Your task to perform on an android device: turn on wifi Image 0: 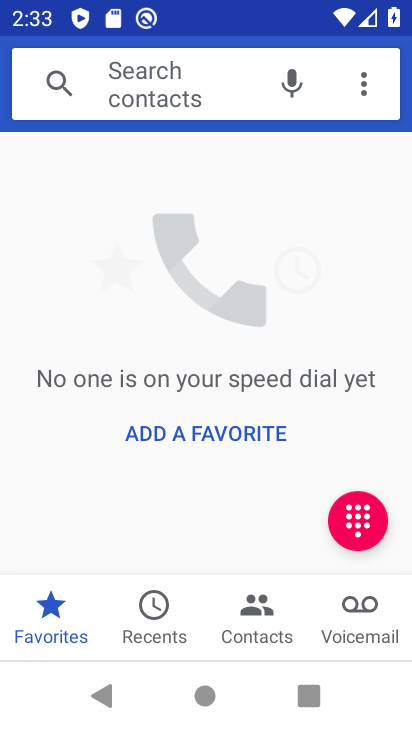
Step 0: press back button
Your task to perform on an android device: turn on wifi Image 1: 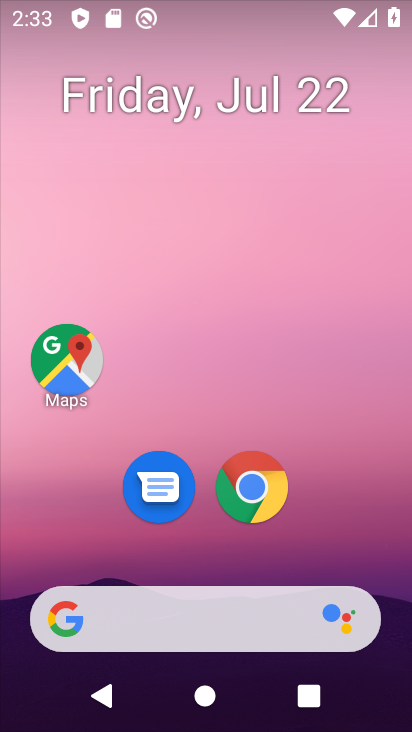
Step 1: task complete